Your task to perform on an android device: show emergency info Image 0: 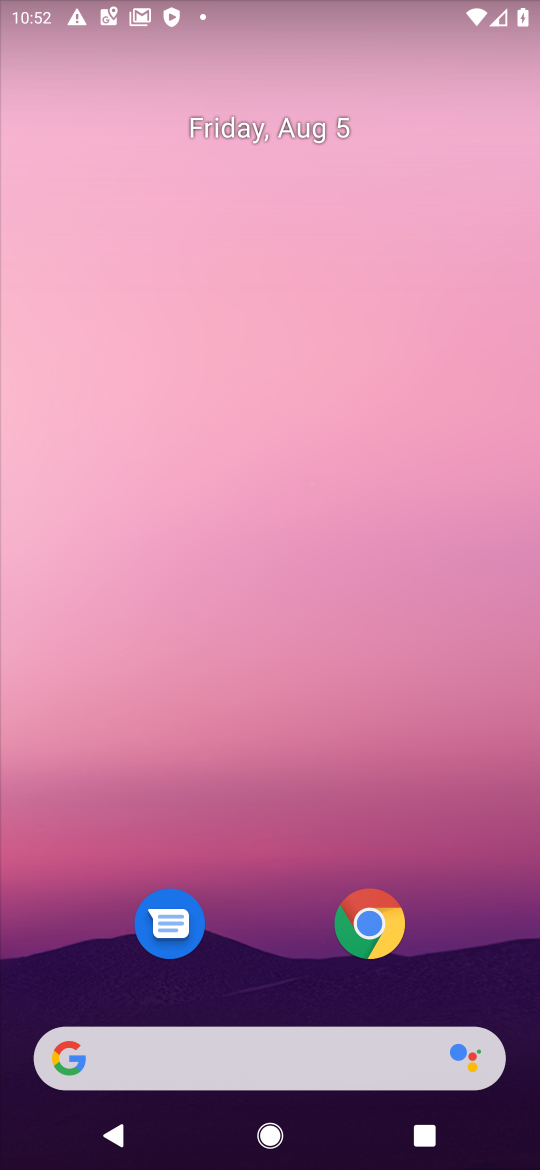
Step 0: click (201, 1117)
Your task to perform on an android device: show emergency info Image 1: 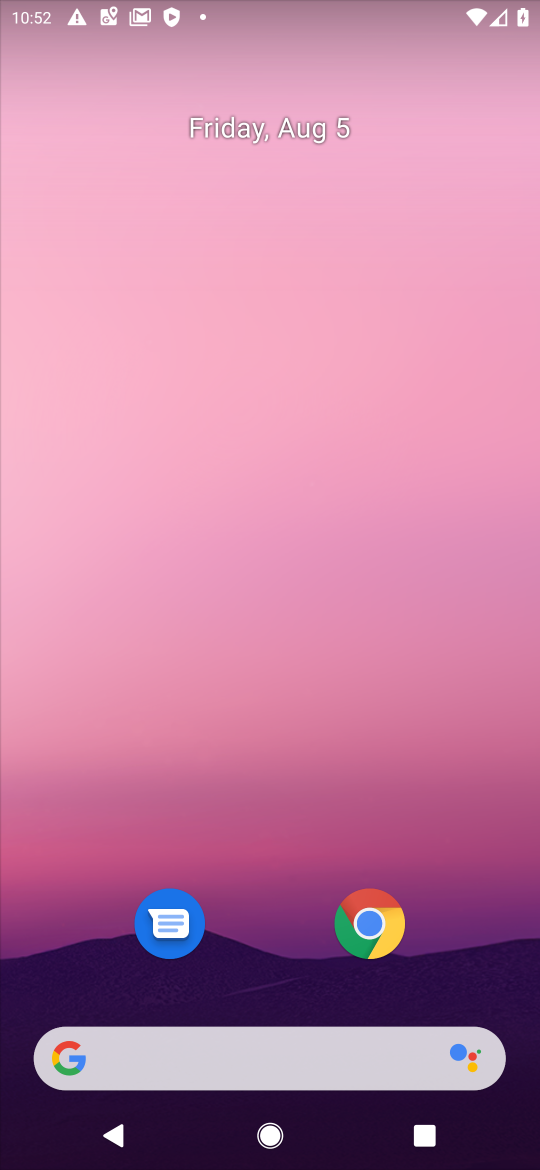
Step 1: drag from (219, 1014) to (307, 53)
Your task to perform on an android device: show emergency info Image 2: 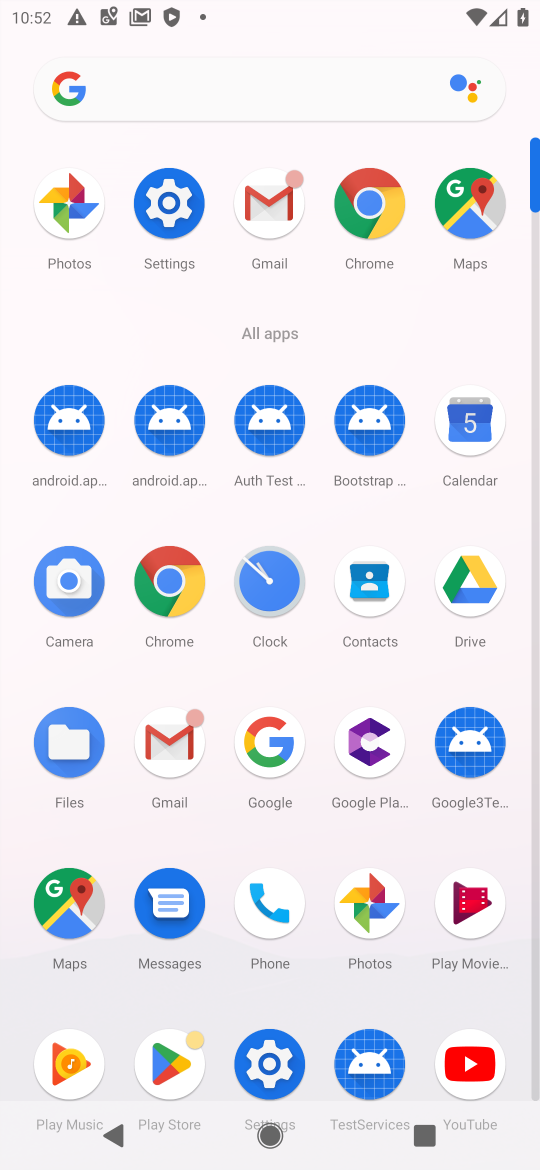
Step 2: click (272, 1064)
Your task to perform on an android device: show emergency info Image 3: 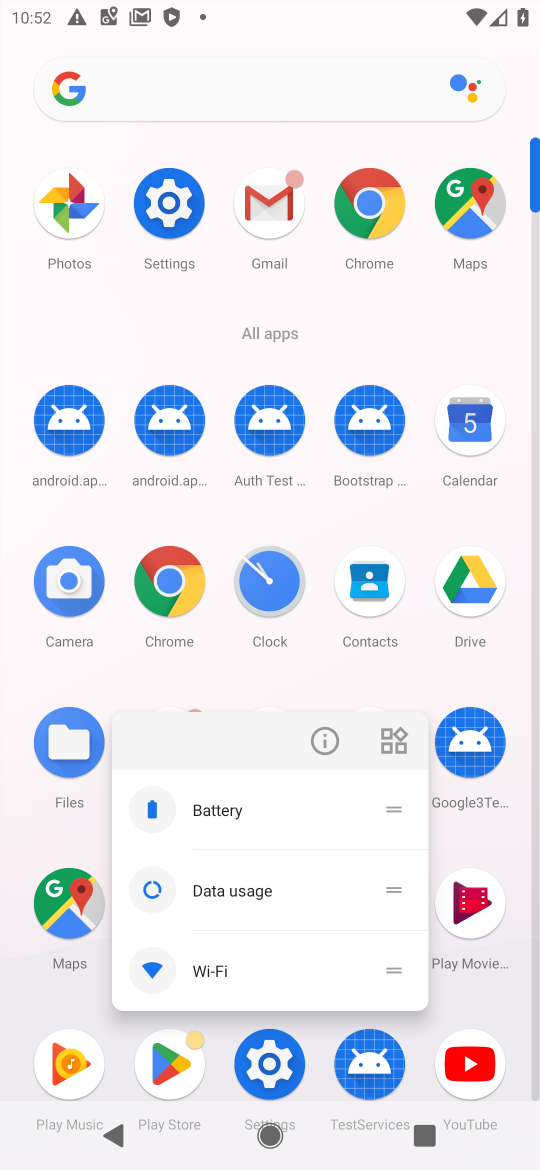
Step 3: click (272, 1064)
Your task to perform on an android device: show emergency info Image 4: 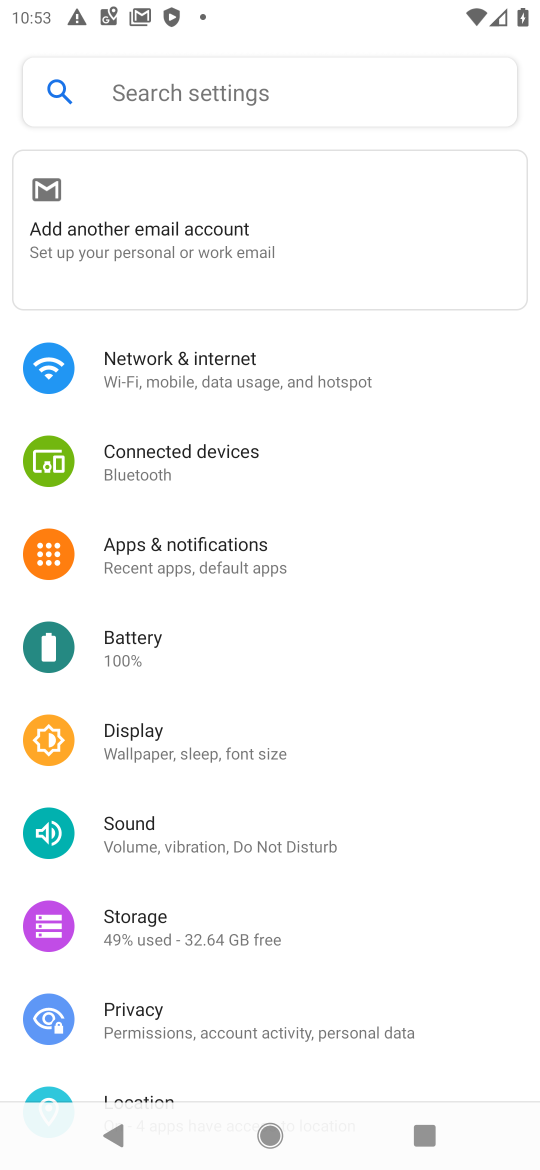
Step 4: drag from (272, 1064) to (242, 78)
Your task to perform on an android device: show emergency info Image 5: 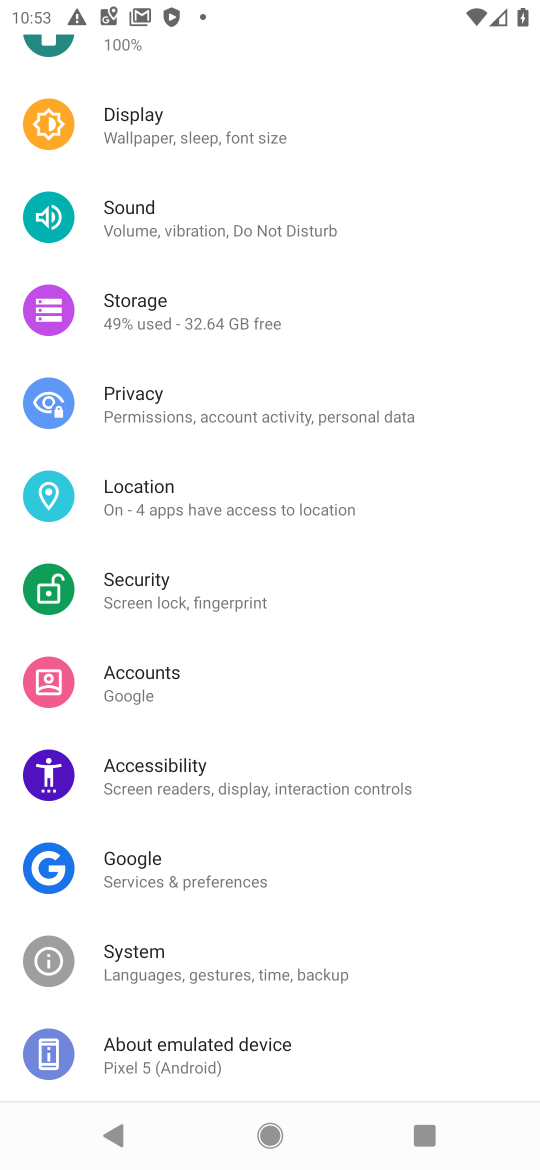
Step 5: click (266, 1049)
Your task to perform on an android device: show emergency info Image 6: 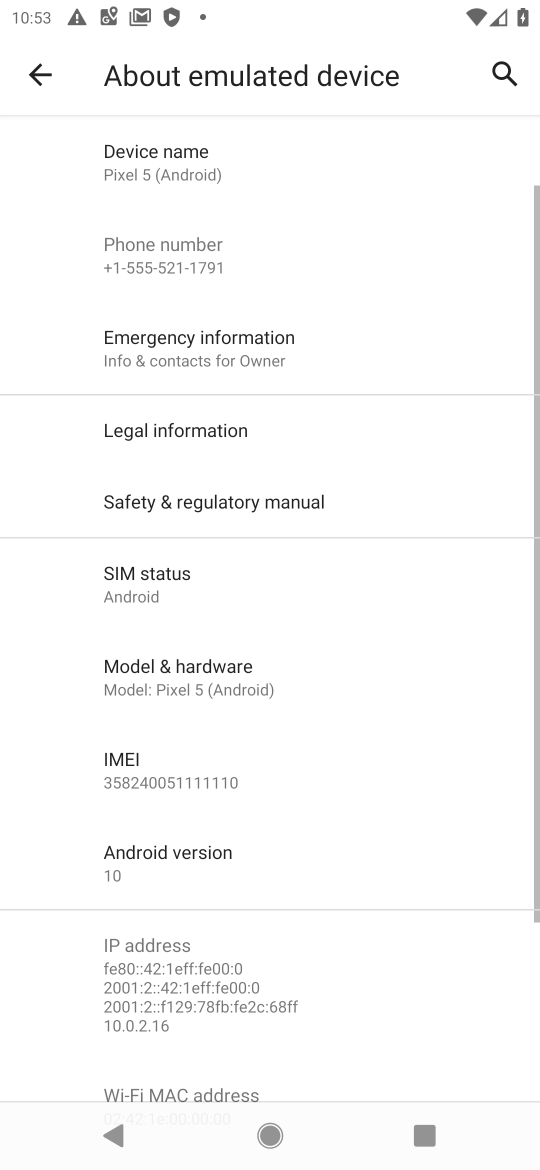
Step 6: click (209, 335)
Your task to perform on an android device: show emergency info Image 7: 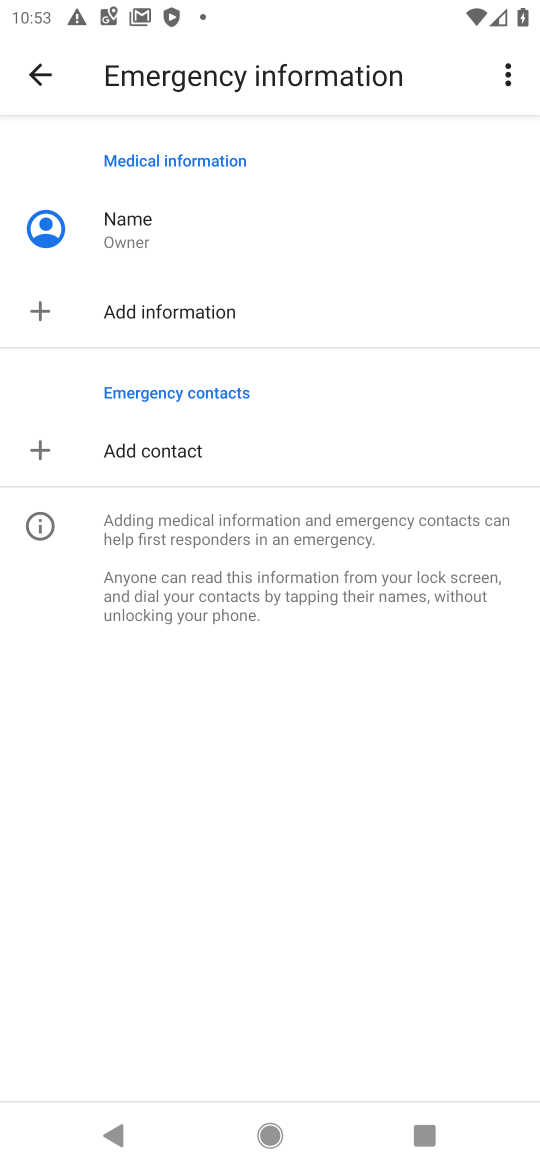
Step 7: task complete